Your task to perform on an android device: Open Youtube and go to the subscriptions tab Image 0: 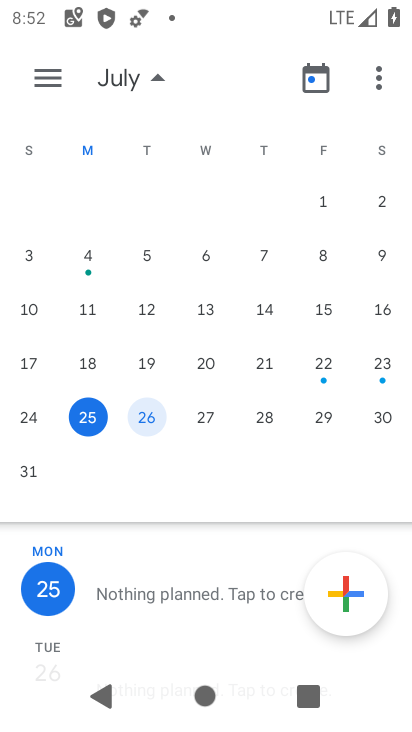
Step 0: press back button
Your task to perform on an android device: Open Youtube and go to the subscriptions tab Image 1: 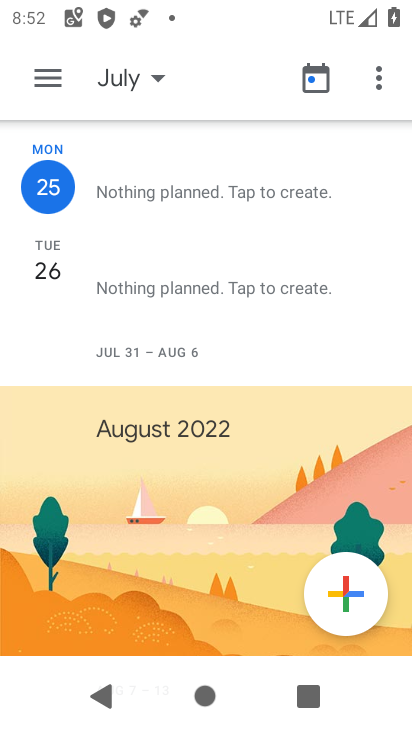
Step 1: press back button
Your task to perform on an android device: Open Youtube and go to the subscriptions tab Image 2: 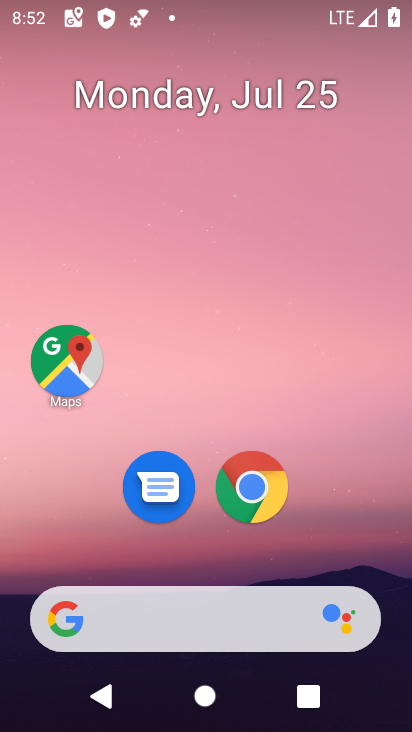
Step 2: drag from (147, 591) to (228, 3)
Your task to perform on an android device: Open Youtube and go to the subscriptions tab Image 3: 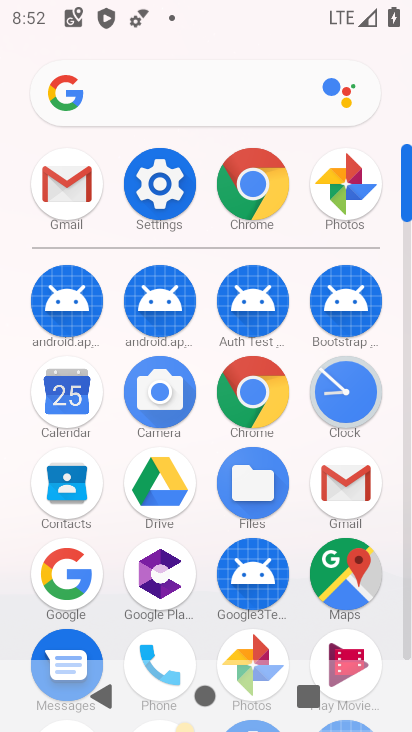
Step 3: drag from (194, 611) to (298, 29)
Your task to perform on an android device: Open Youtube and go to the subscriptions tab Image 4: 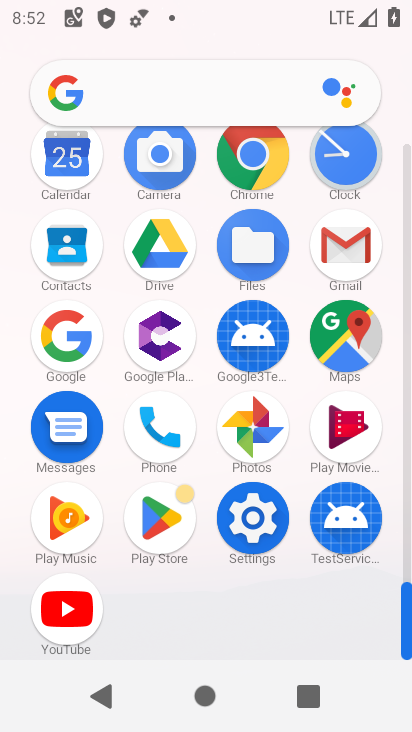
Step 4: click (78, 596)
Your task to perform on an android device: Open Youtube and go to the subscriptions tab Image 5: 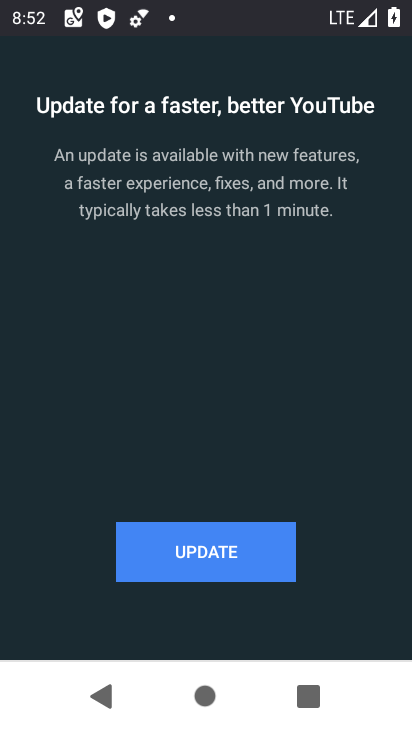
Step 5: click (196, 537)
Your task to perform on an android device: Open Youtube and go to the subscriptions tab Image 6: 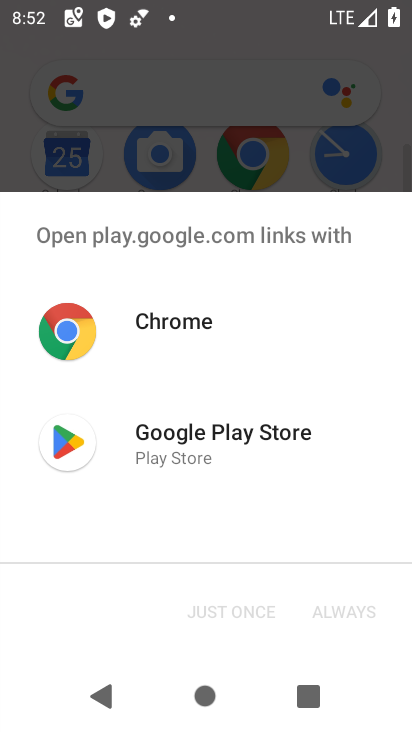
Step 6: click (185, 451)
Your task to perform on an android device: Open Youtube and go to the subscriptions tab Image 7: 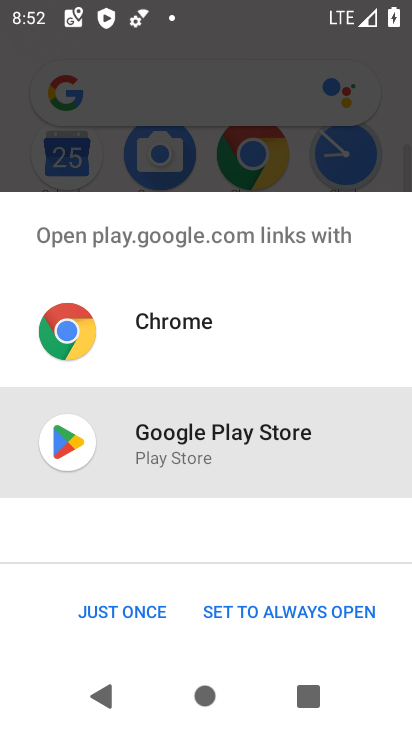
Step 7: click (134, 606)
Your task to perform on an android device: Open Youtube and go to the subscriptions tab Image 8: 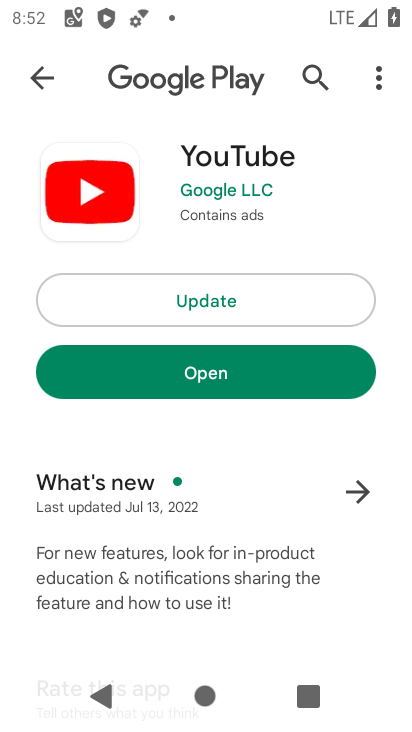
Step 8: click (193, 385)
Your task to perform on an android device: Open Youtube and go to the subscriptions tab Image 9: 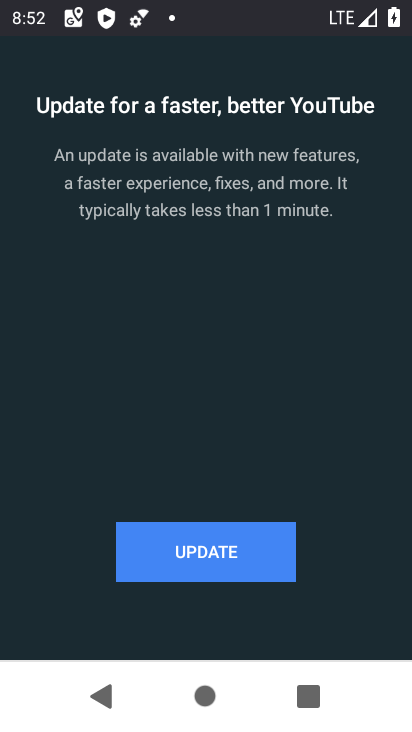
Step 9: click (214, 571)
Your task to perform on an android device: Open Youtube and go to the subscriptions tab Image 10: 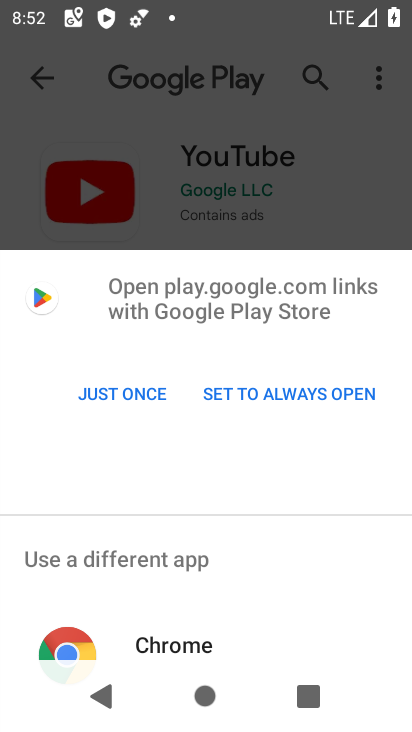
Step 10: click (124, 378)
Your task to perform on an android device: Open Youtube and go to the subscriptions tab Image 11: 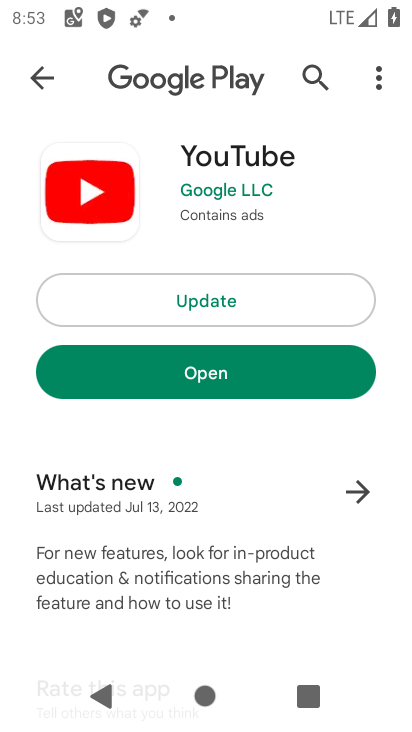
Step 11: click (164, 298)
Your task to perform on an android device: Open Youtube and go to the subscriptions tab Image 12: 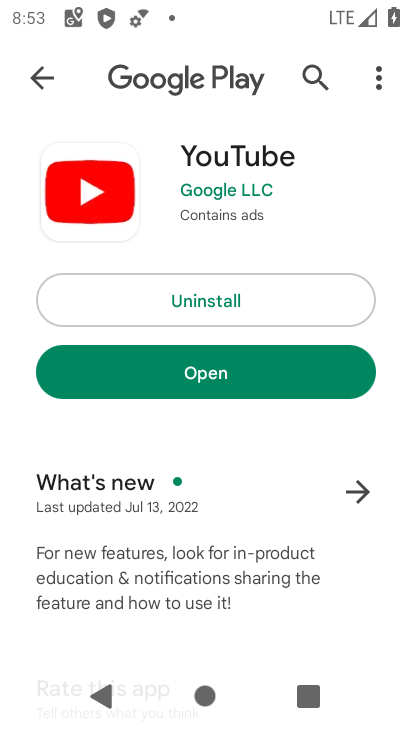
Step 12: click (155, 363)
Your task to perform on an android device: Open Youtube and go to the subscriptions tab Image 13: 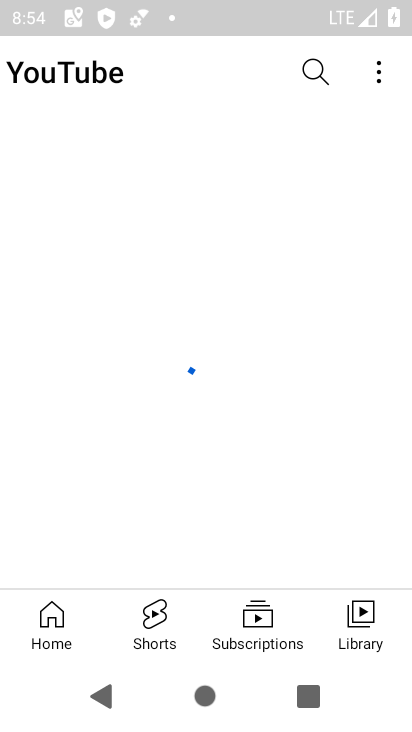
Step 13: click (241, 623)
Your task to perform on an android device: Open Youtube and go to the subscriptions tab Image 14: 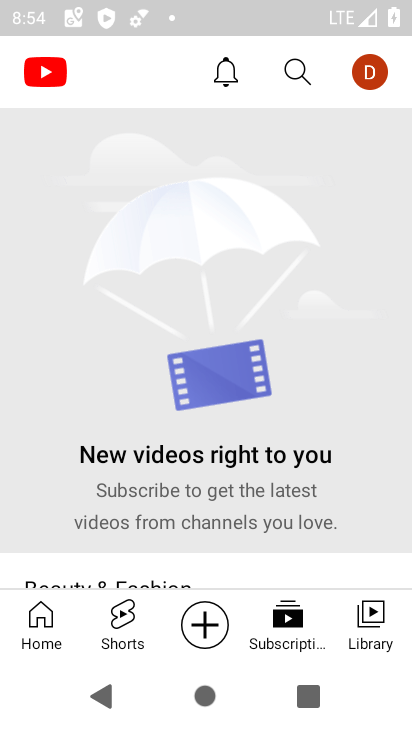
Step 14: task complete